Your task to perform on an android device: toggle improve location accuracy Image 0: 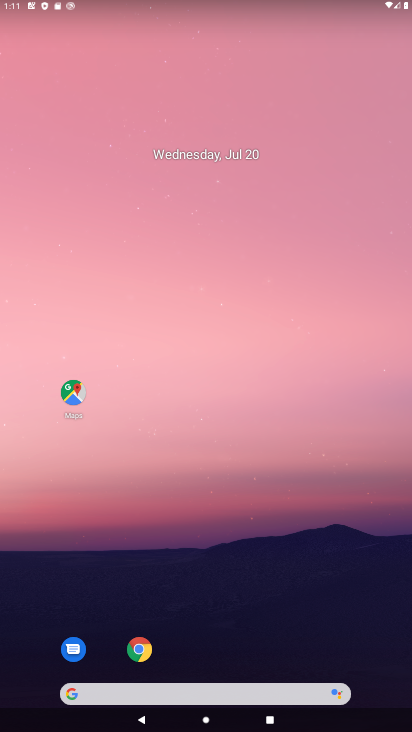
Step 0: press home button
Your task to perform on an android device: toggle improve location accuracy Image 1: 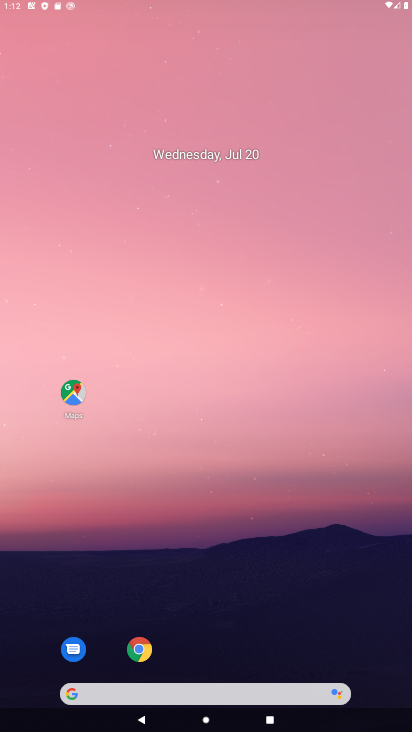
Step 1: click (278, 270)
Your task to perform on an android device: toggle improve location accuracy Image 2: 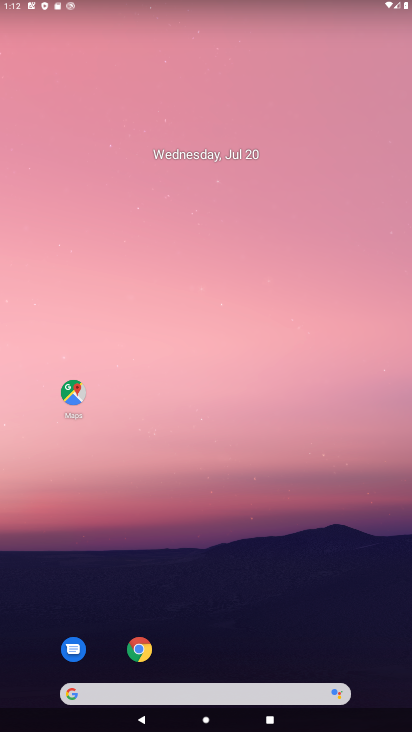
Step 2: drag from (306, 612) to (313, 141)
Your task to perform on an android device: toggle improve location accuracy Image 3: 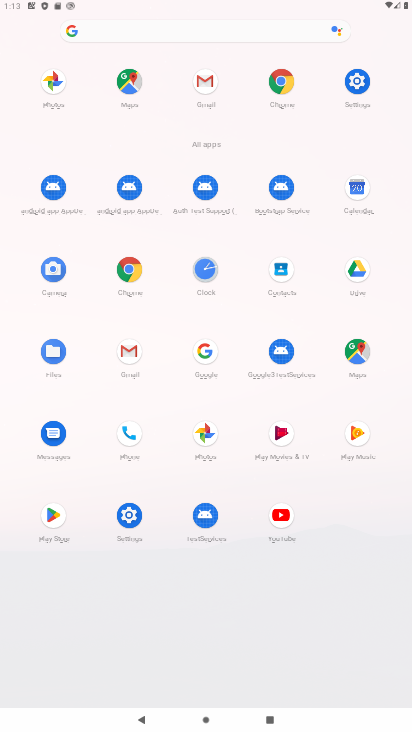
Step 3: click (355, 70)
Your task to perform on an android device: toggle improve location accuracy Image 4: 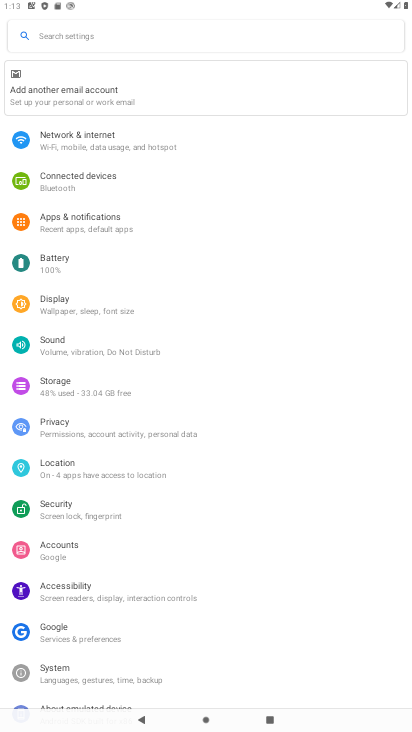
Step 4: click (67, 472)
Your task to perform on an android device: toggle improve location accuracy Image 5: 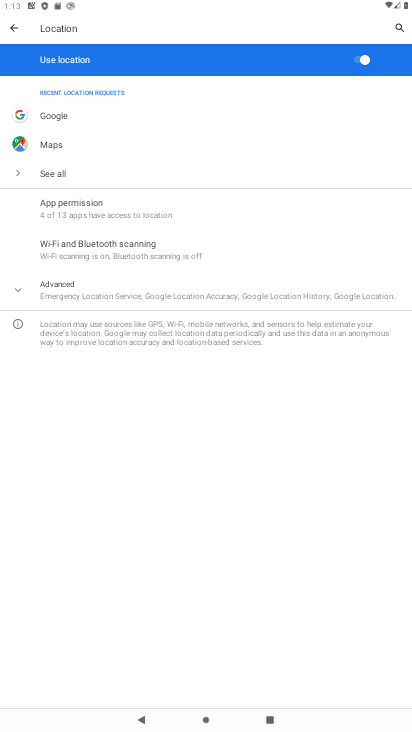
Step 5: click (91, 291)
Your task to perform on an android device: toggle improve location accuracy Image 6: 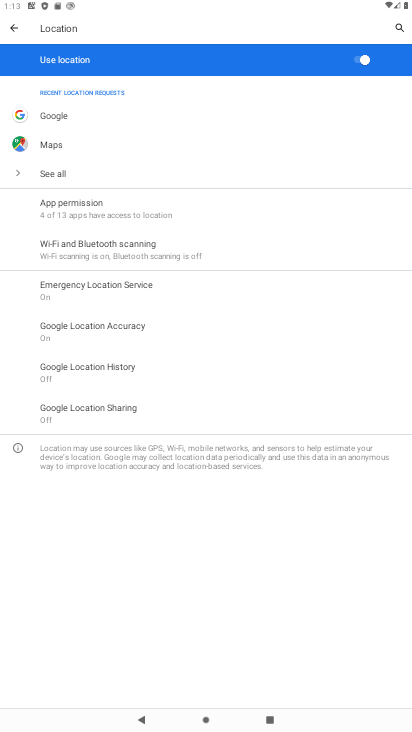
Step 6: click (91, 323)
Your task to perform on an android device: toggle improve location accuracy Image 7: 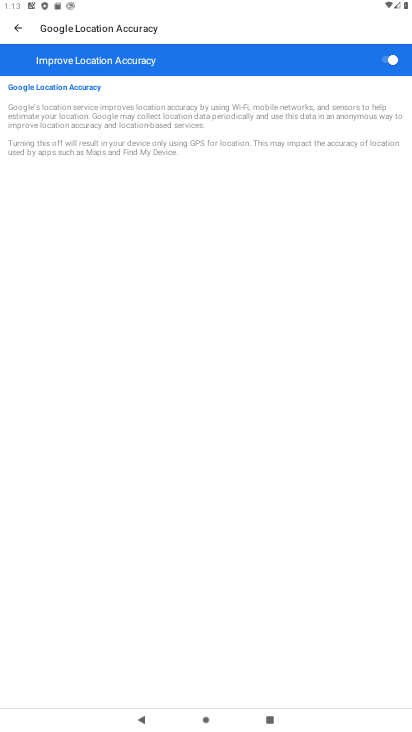
Step 7: click (278, 65)
Your task to perform on an android device: toggle improve location accuracy Image 8: 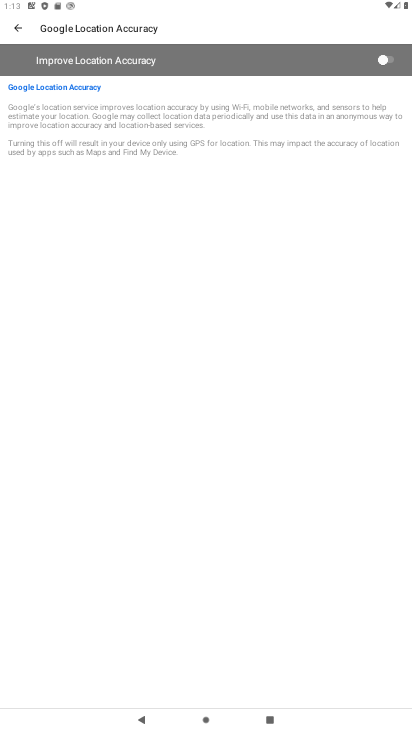
Step 8: task complete